Your task to perform on an android device: Open battery settings Image 0: 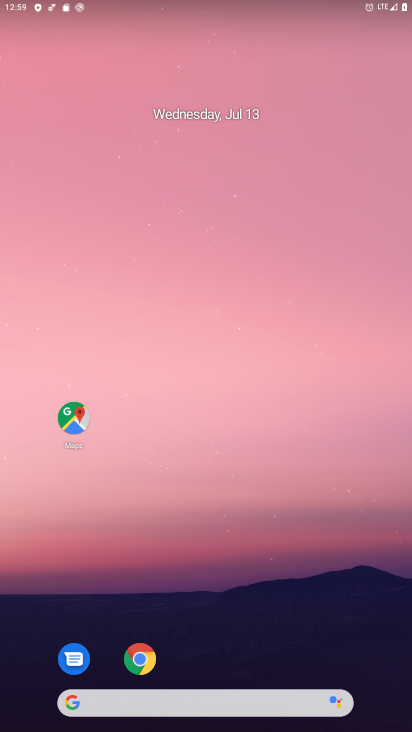
Step 0: drag from (55, 683) to (231, 16)
Your task to perform on an android device: Open battery settings Image 1: 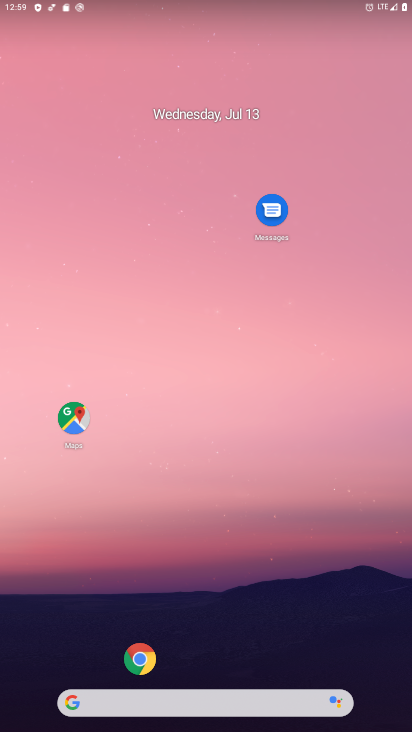
Step 1: drag from (16, 700) to (338, 17)
Your task to perform on an android device: Open battery settings Image 2: 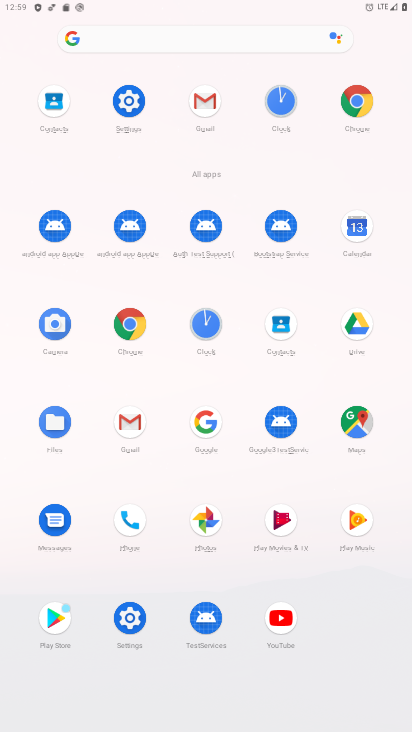
Step 2: click (132, 616)
Your task to perform on an android device: Open battery settings Image 3: 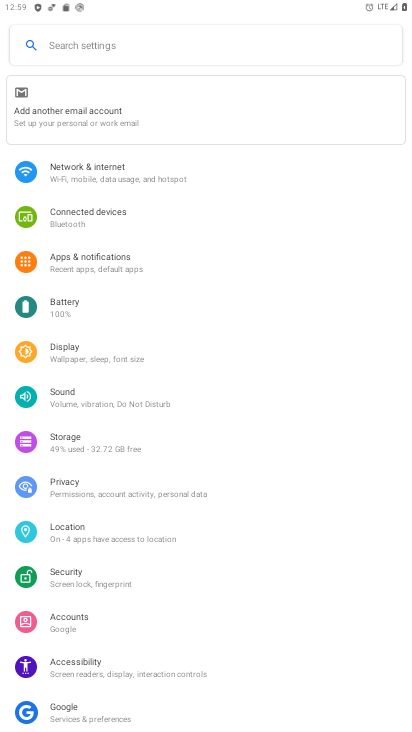
Step 3: click (60, 304)
Your task to perform on an android device: Open battery settings Image 4: 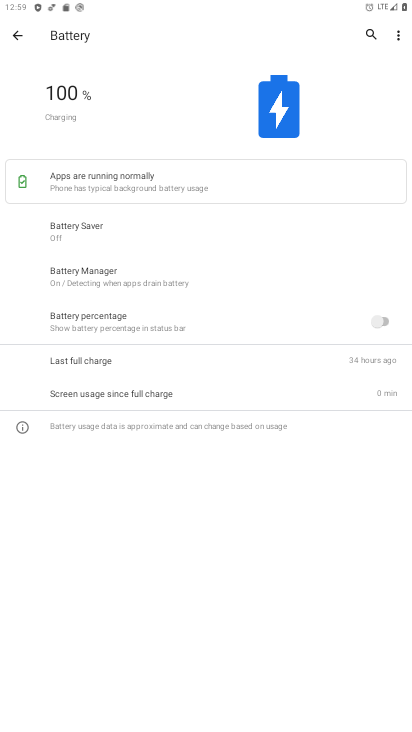
Step 4: task complete